Your task to perform on an android device: read, delete, or share a saved page in the chrome app Image 0: 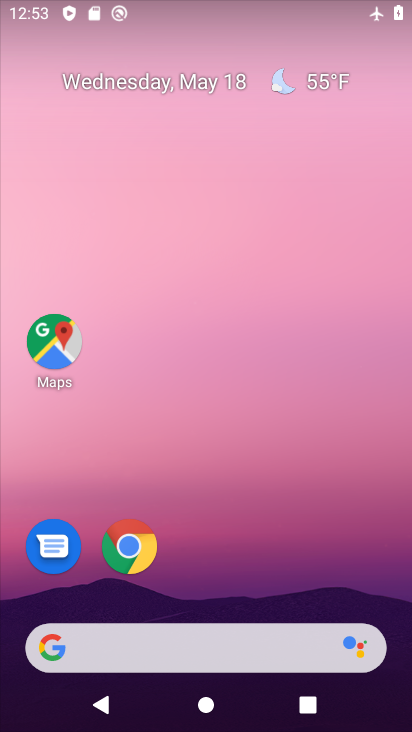
Step 0: drag from (387, 548) to (342, 121)
Your task to perform on an android device: read, delete, or share a saved page in the chrome app Image 1: 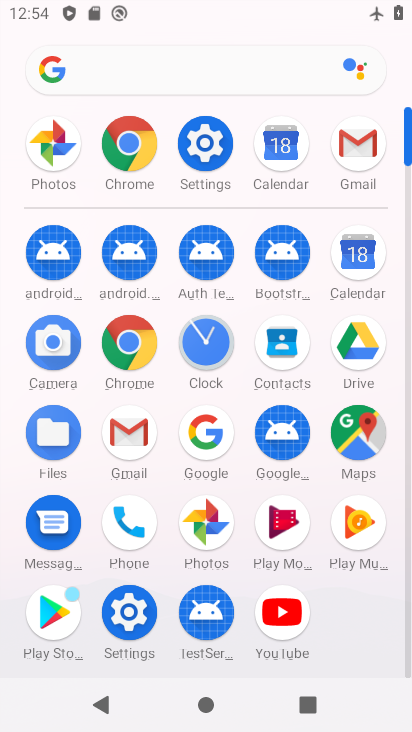
Step 1: click (145, 344)
Your task to perform on an android device: read, delete, or share a saved page in the chrome app Image 2: 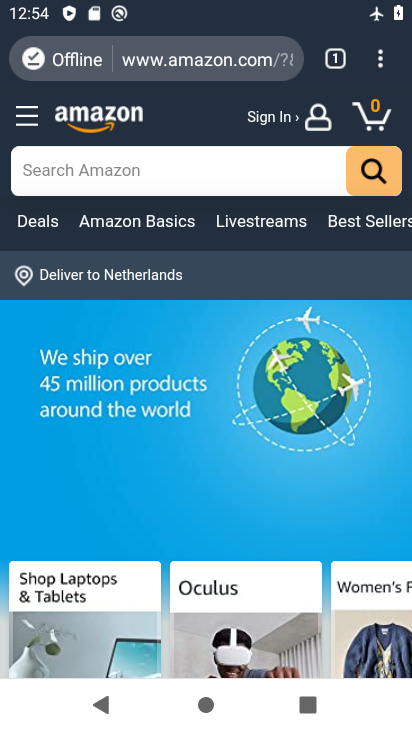
Step 2: task complete